Your task to perform on an android device: toggle data saver in the chrome app Image 0: 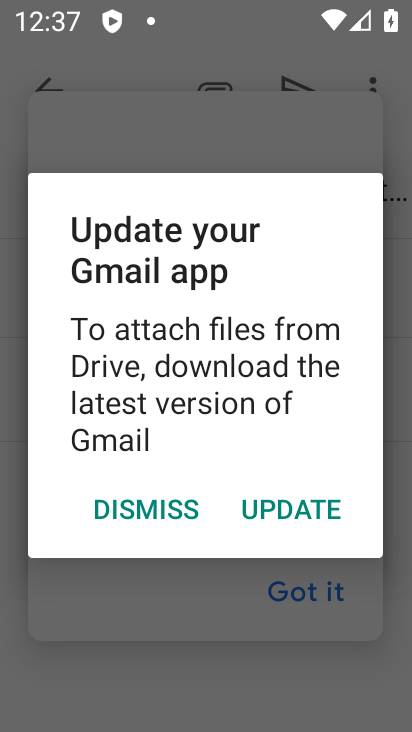
Step 0: press home button
Your task to perform on an android device: toggle data saver in the chrome app Image 1: 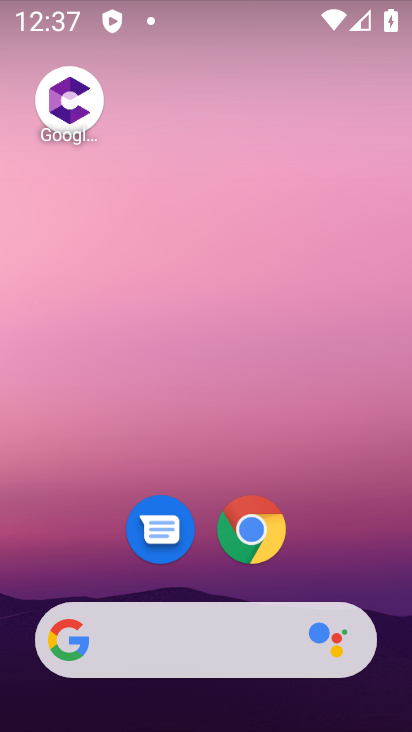
Step 1: click (253, 525)
Your task to perform on an android device: toggle data saver in the chrome app Image 2: 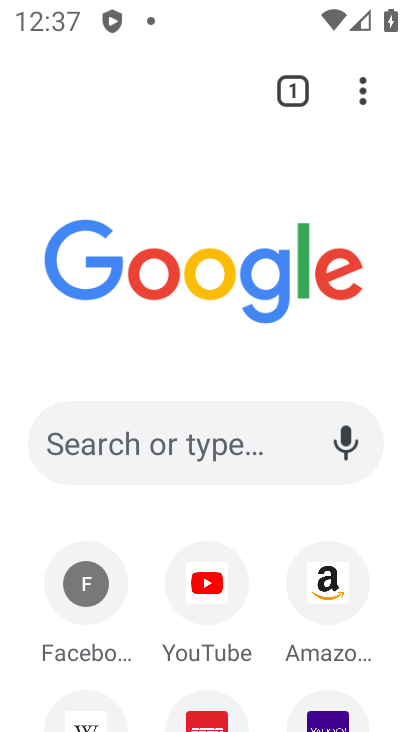
Step 2: click (361, 88)
Your task to perform on an android device: toggle data saver in the chrome app Image 3: 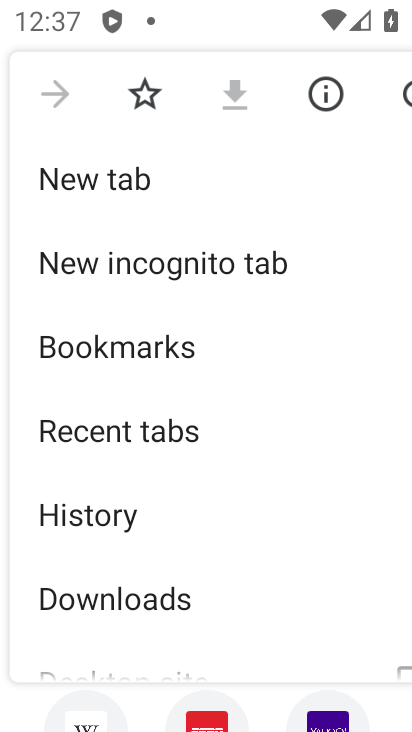
Step 3: drag from (120, 466) to (190, 383)
Your task to perform on an android device: toggle data saver in the chrome app Image 4: 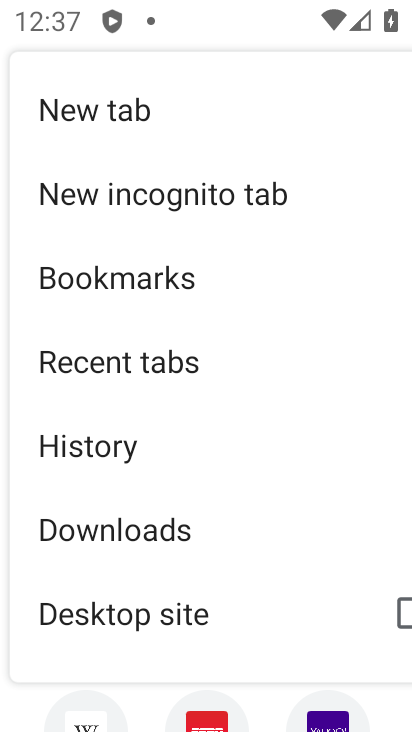
Step 4: drag from (147, 482) to (225, 385)
Your task to perform on an android device: toggle data saver in the chrome app Image 5: 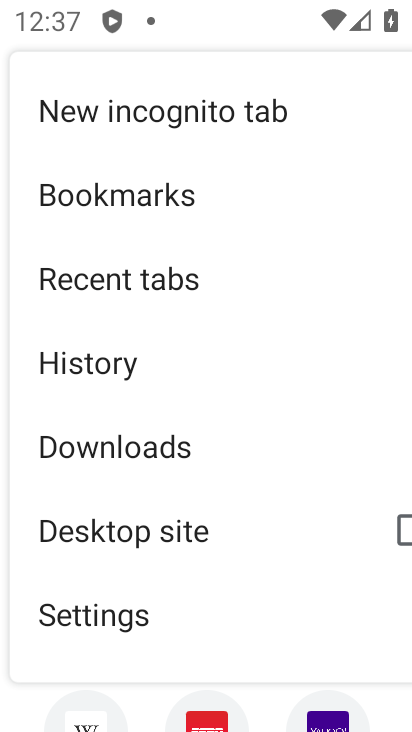
Step 5: drag from (135, 489) to (225, 390)
Your task to perform on an android device: toggle data saver in the chrome app Image 6: 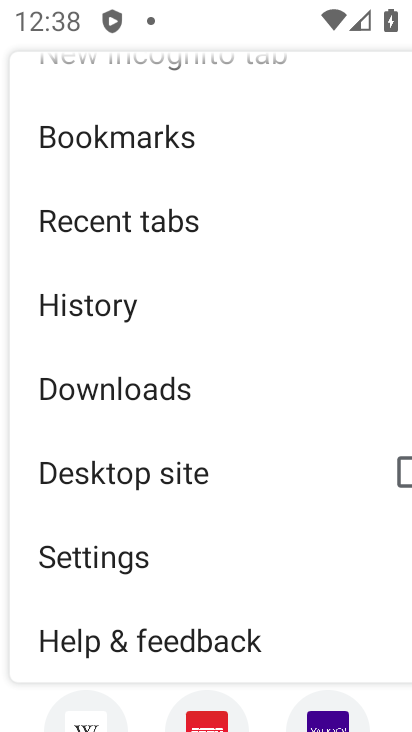
Step 6: click (58, 563)
Your task to perform on an android device: toggle data saver in the chrome app Image 7: 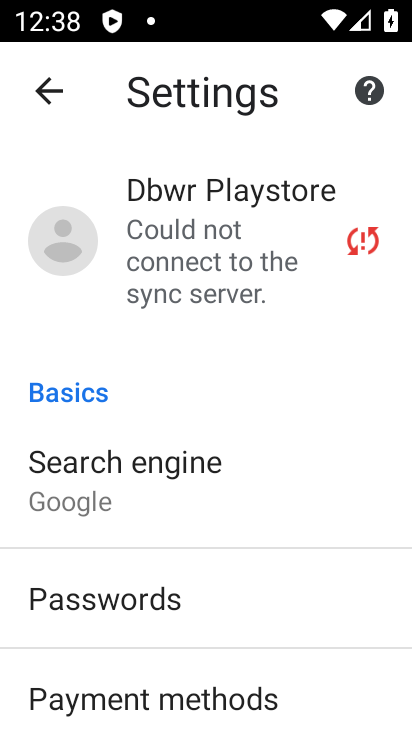
Step 7: drag from (202, 586) to (268, 507)
Your task to perform on an android device: toggle data saver in the chrome app Image 8: 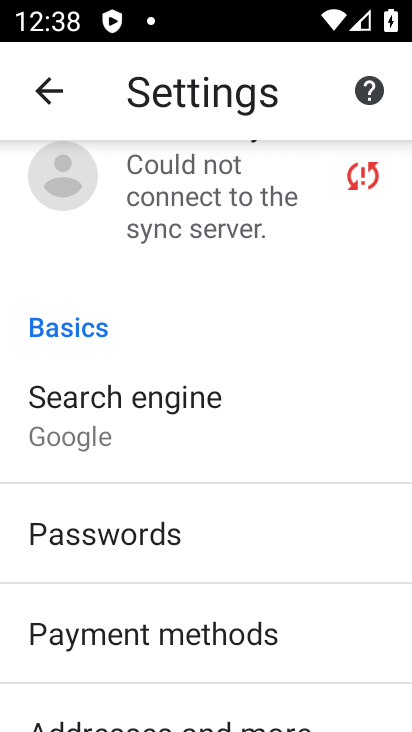
Step 8: drag from (203, 548) to (243, 466)
Your task to perform on an android device: toggle data saver in the chrome app Image 9: 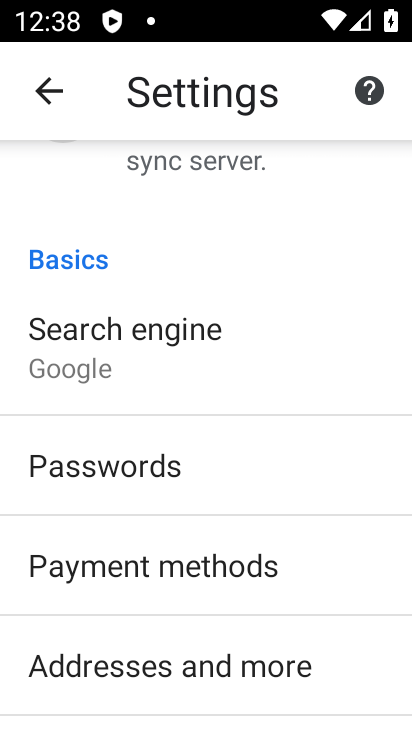
Step 9: drag from (154, 629) to (239, 521)
Your task to perform on an android device: toggle data saver in the chrome app Image 10: 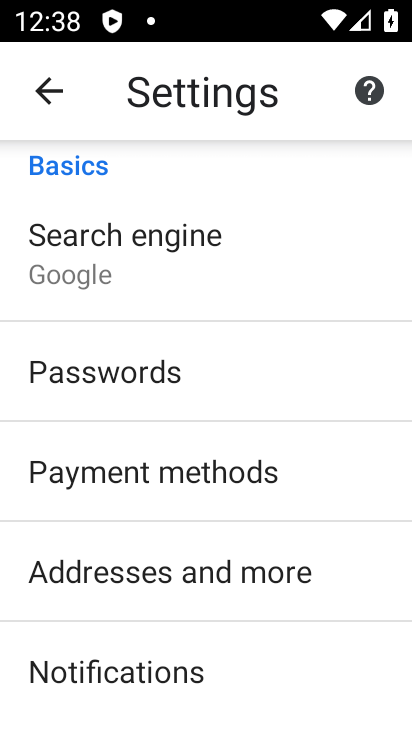
Step 10: drag from (208, 652) to (256, 561)
Your task to perform on an android device: toggle data saver in the chrome app Image 11: 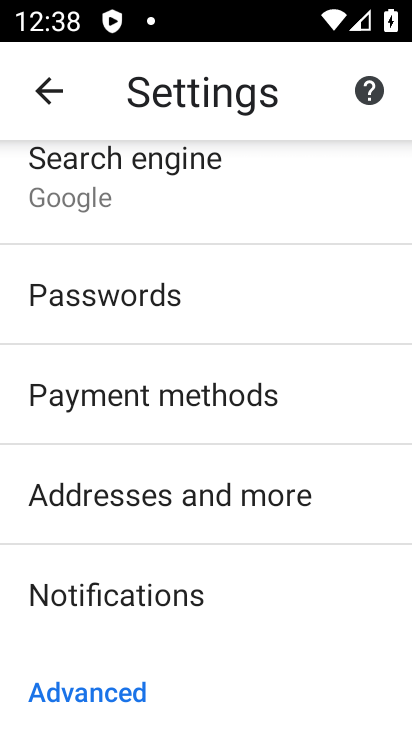
Step 11: drag from (204, 632) to (282, 487)
Your task to perform on an android device: toggle data saver in the chrome app Image 12: 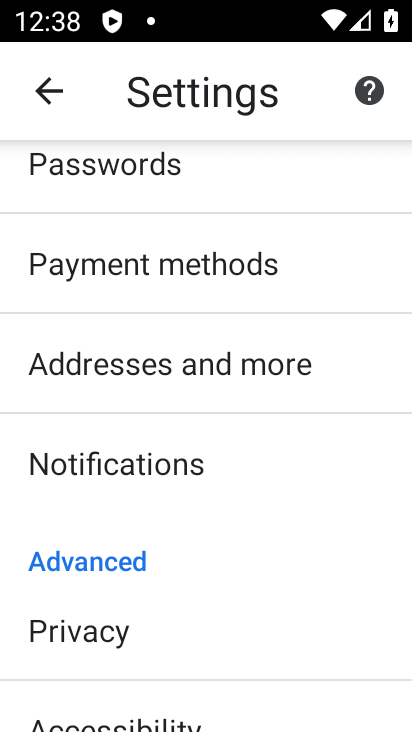
Step 12: drag from (179, 627) to (249, 535)
Your task to perform on an android device: toggle data saver in the chrome app Image 13: 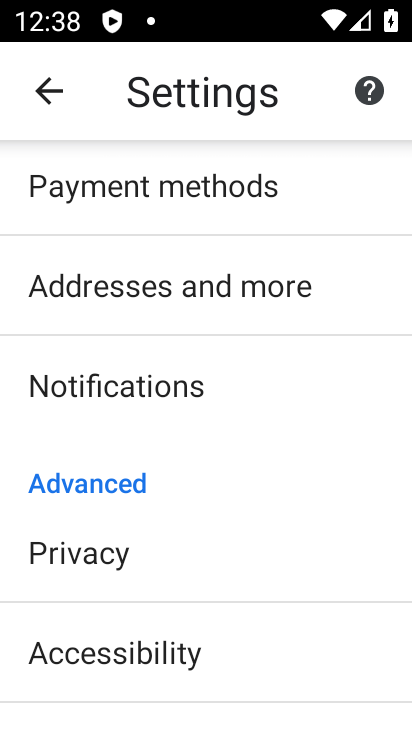
Step 13: drag from (253, 637) to (287, 561)
Your task to perform on an android device: toggle data saver in the chrome app Image 14: 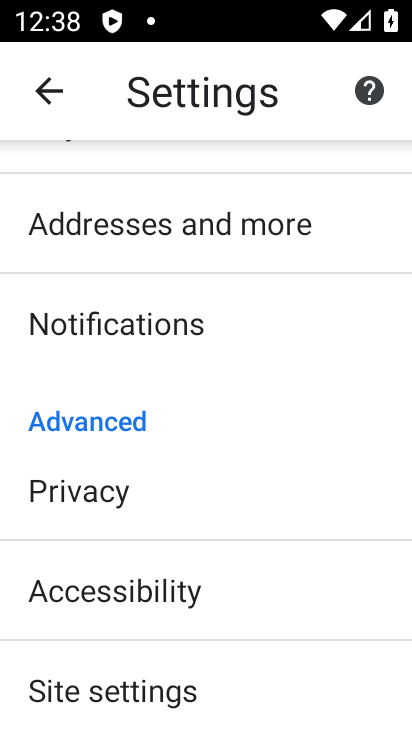
Step 14: drag from (229, 651) to (267, 558)
Your task to perform on an android device: toggle data saver in the chrome app Image 15: 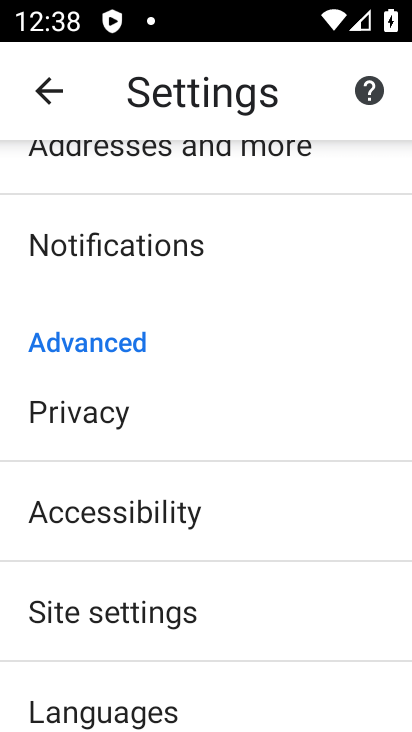
Step 15: drag from (232, 621) to (281, 529)
Your task to perform on an android device: toggle data saver in the chrome app Image 16: 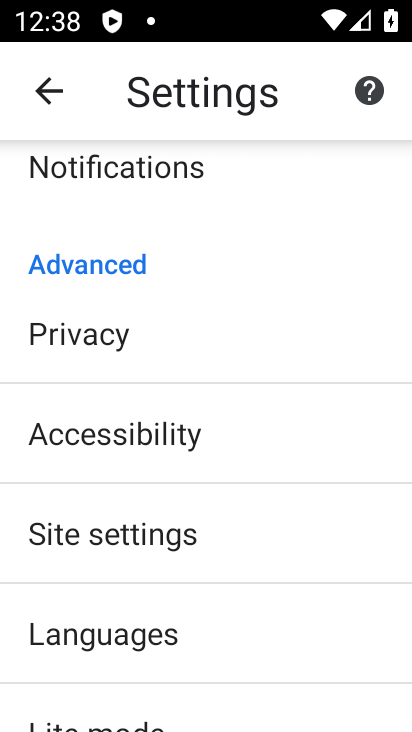
Step 16: drag from (193, 640) to (284, 518)
Your task to perform on an android device: toggle data saver in the chrome app Image 17: 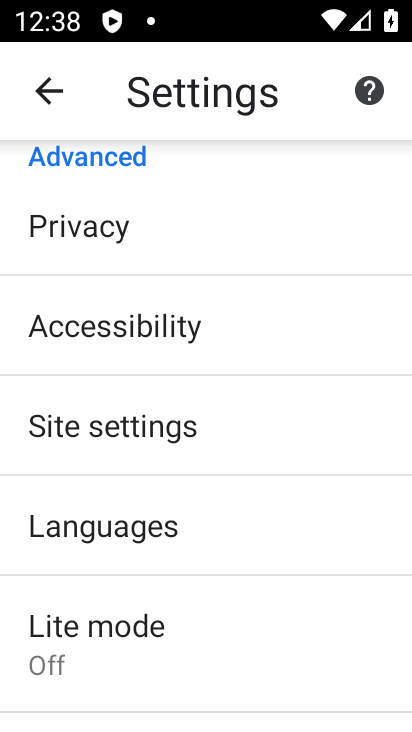
Step 17: click (148, 623)
Your task to perform on an android device: toggle data saver in the chrome app Image 18: 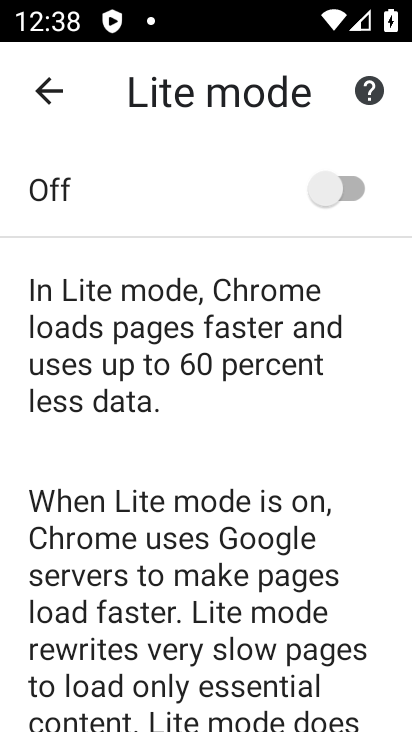
Step 18: click (346, 191)
Your task to perform on an android device: toggle data saver in the chrome app Image 19: 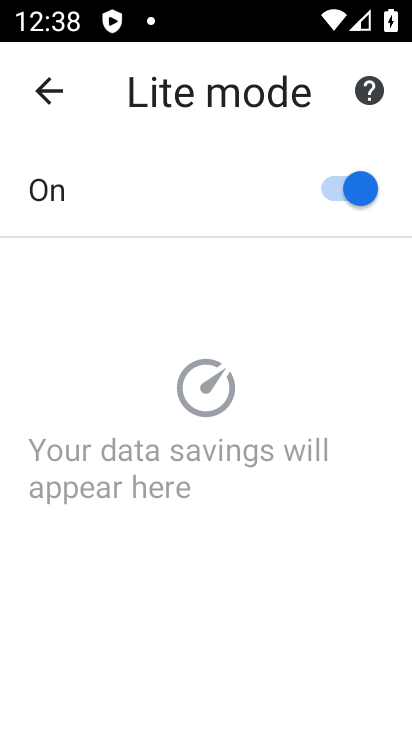
Step 19: task complete